Your task to perform on an android device: turn on location history Image 0: 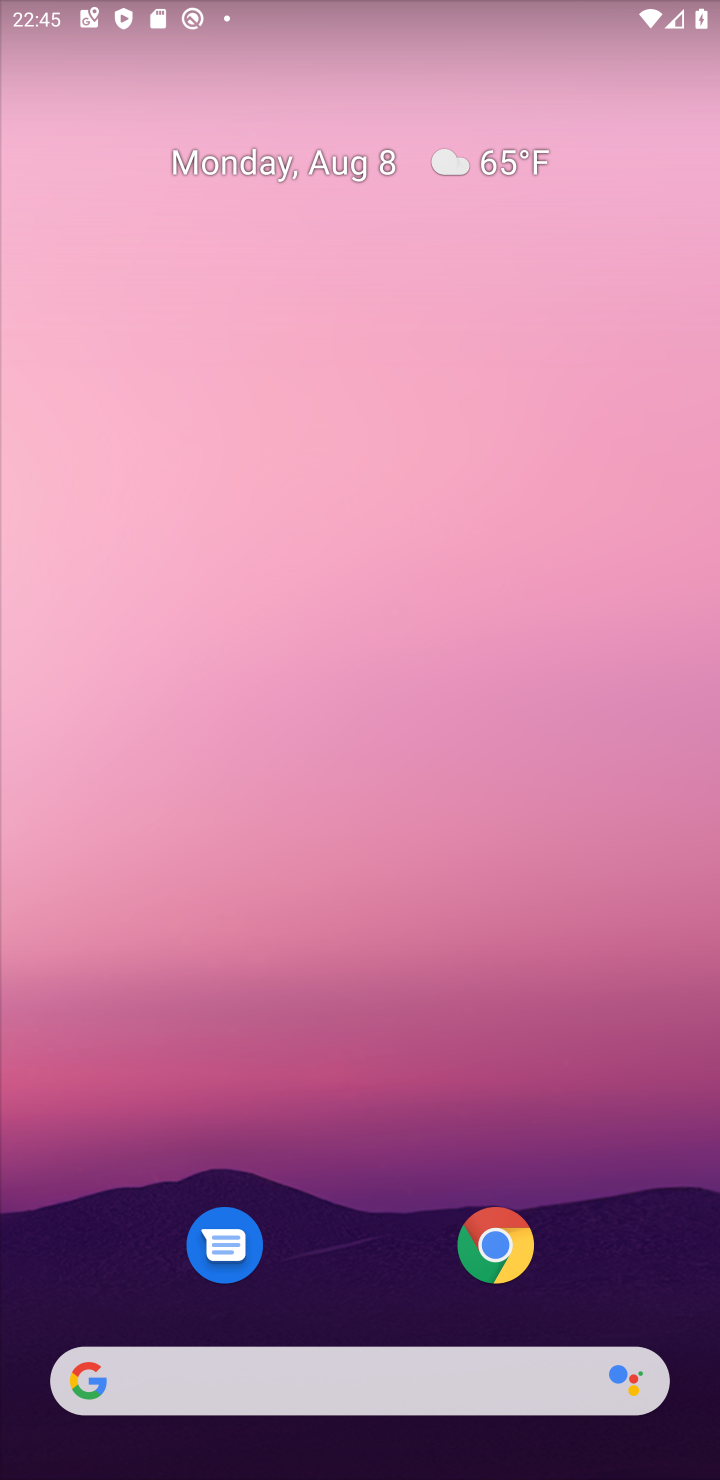
Step 0: press home button
Your task to perform on an android device: turn on location history Image 1: 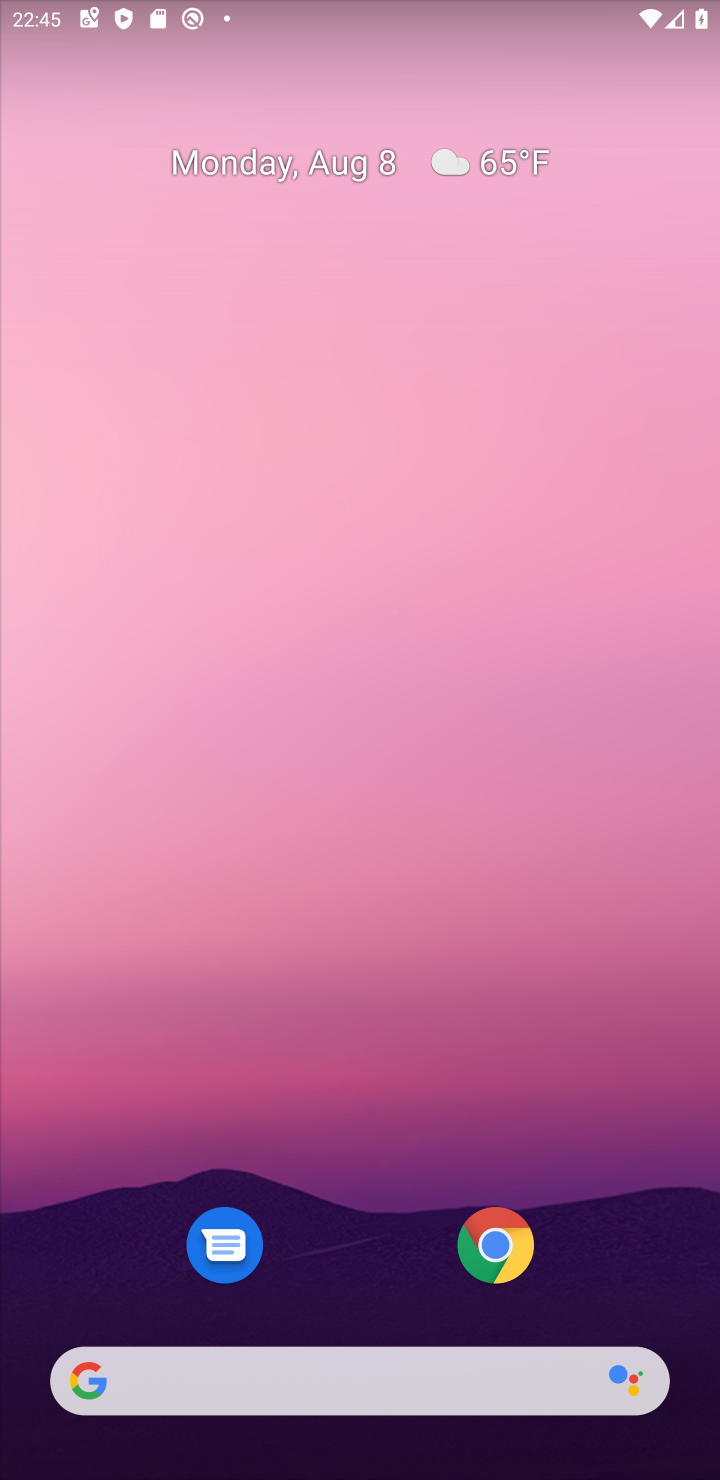
Step 1: drag from (331, 1290) to (358, 606)
Your task to perform on an android device: turn on location history Image 2: 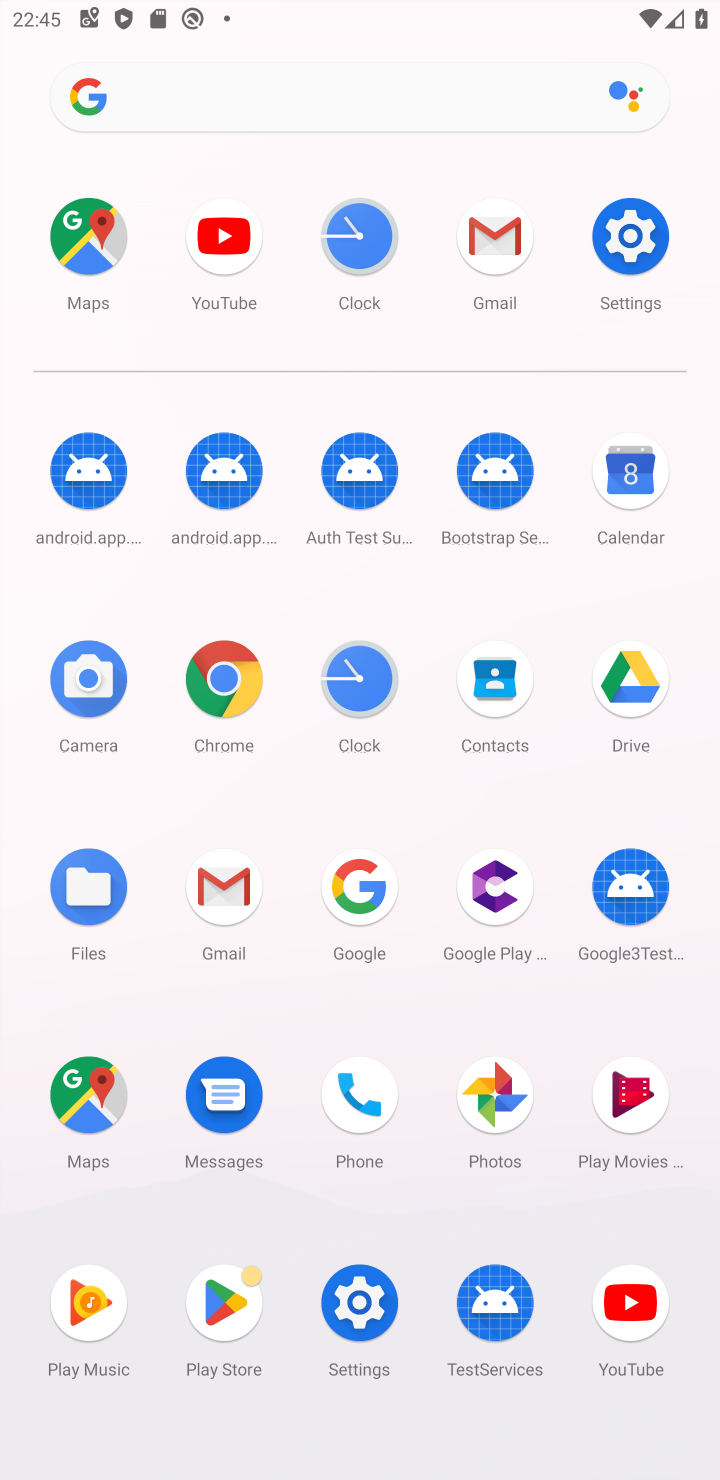
Step 2: click (635, 231)
Your task to perform on an android device: turn on location history Image 3: 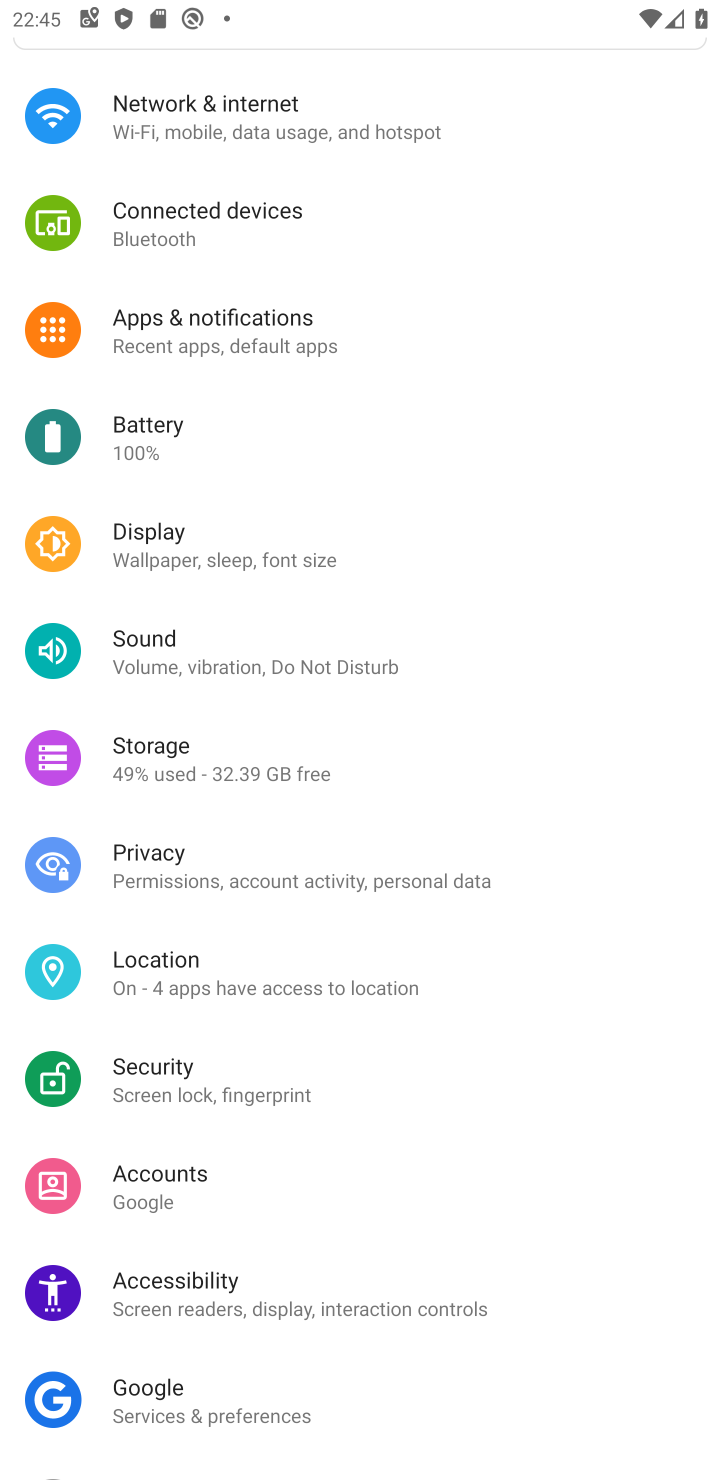
Step 3: click (177, 950)
Your task to perform on an android device: turn on location history Image 4: 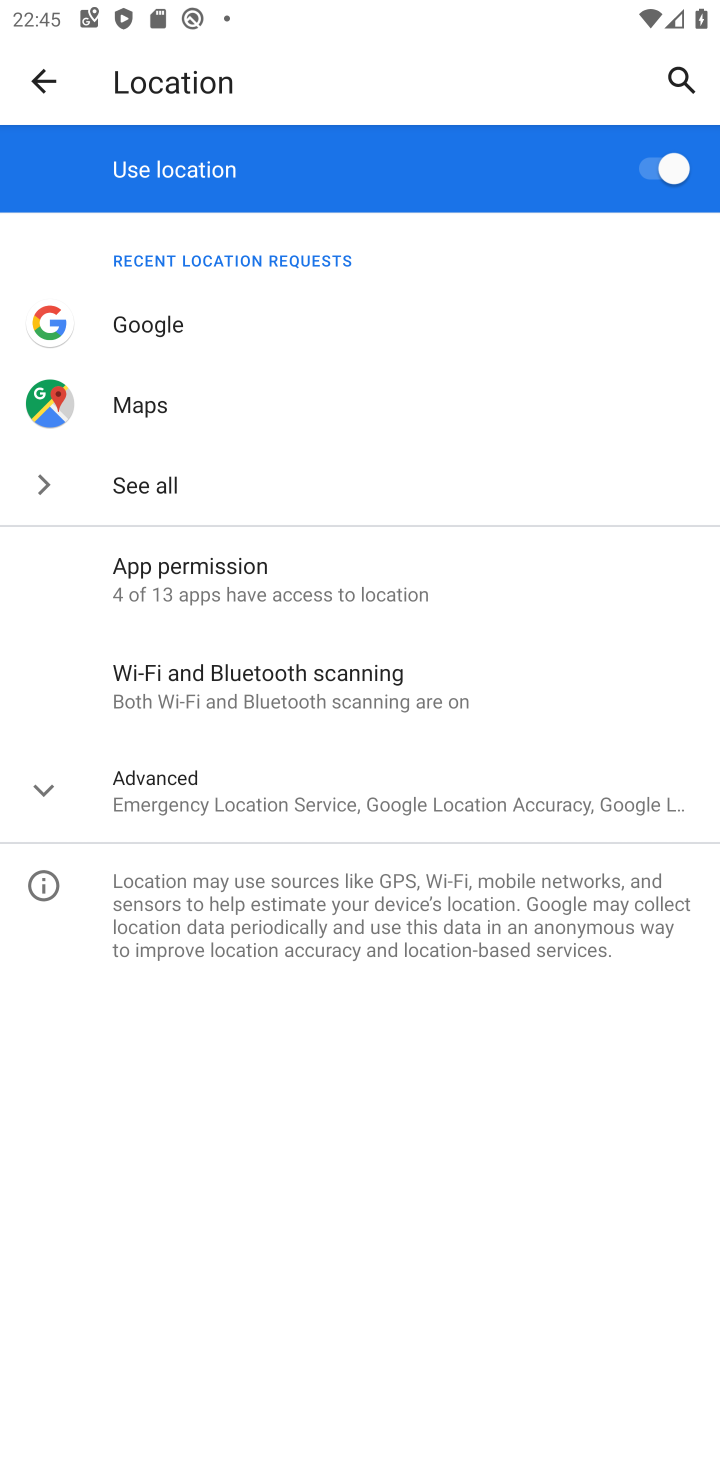
Step 4: click (109, 782)
Your task to perform on an android device: turn on location history Image 5: 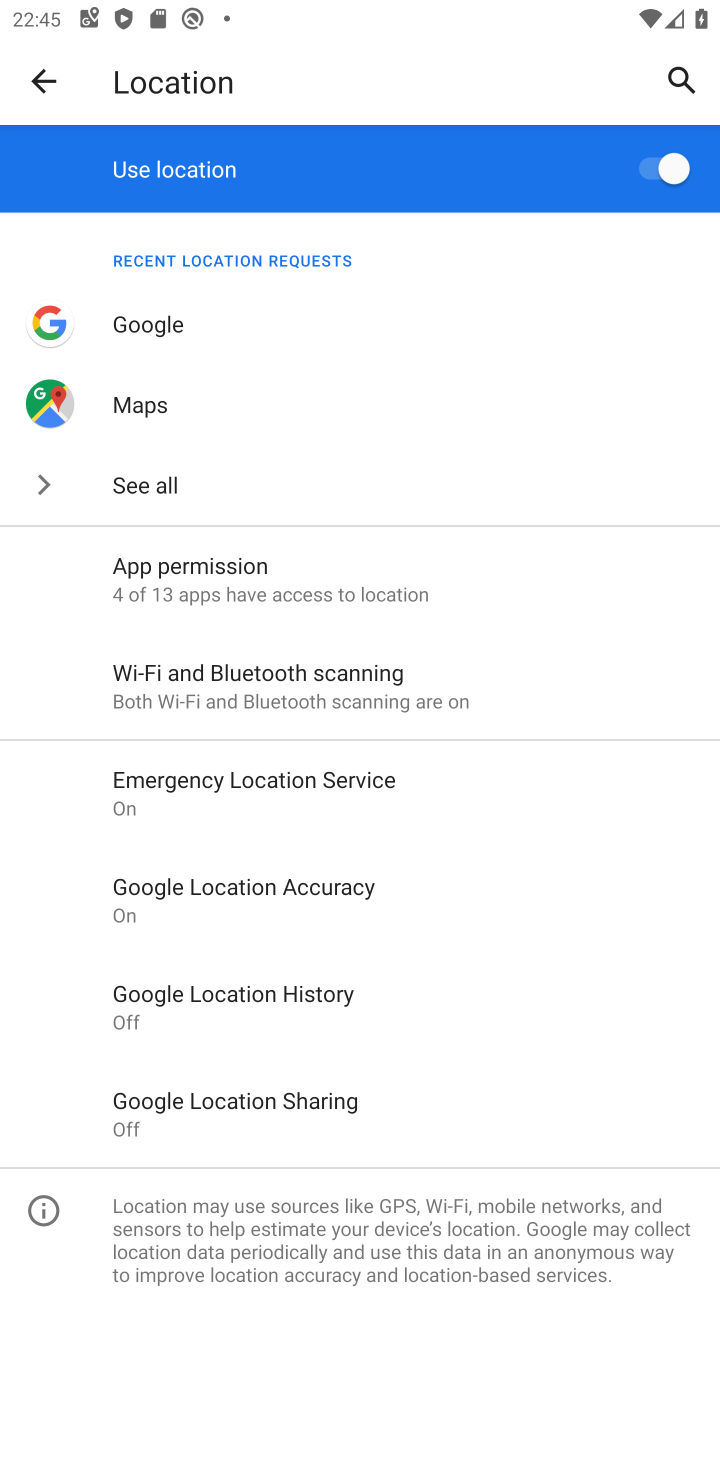
Step 5: click (196, 1006)
Your task to perform on an android device: turn on location history Image 6: 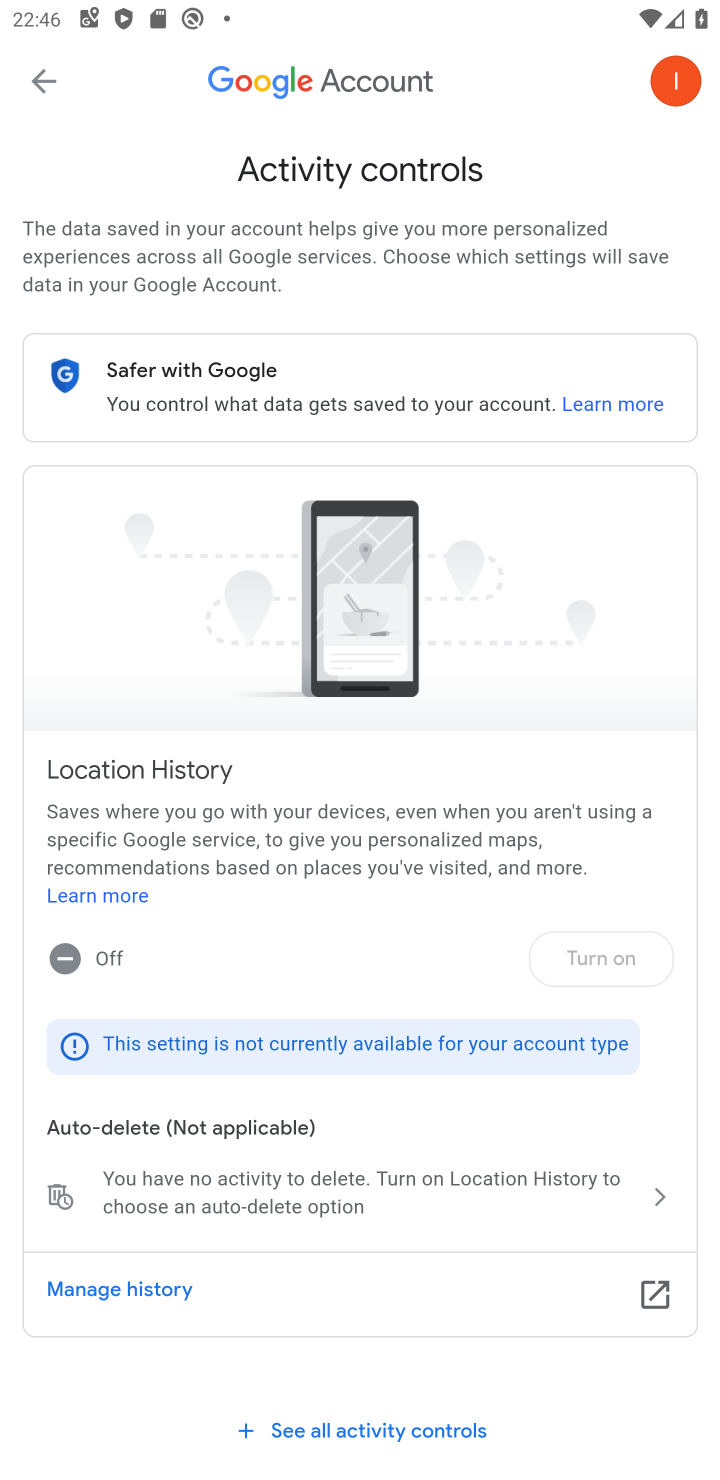
Step 6: task complete